Your task to perform on an android device: change text size in settings app Image 0: 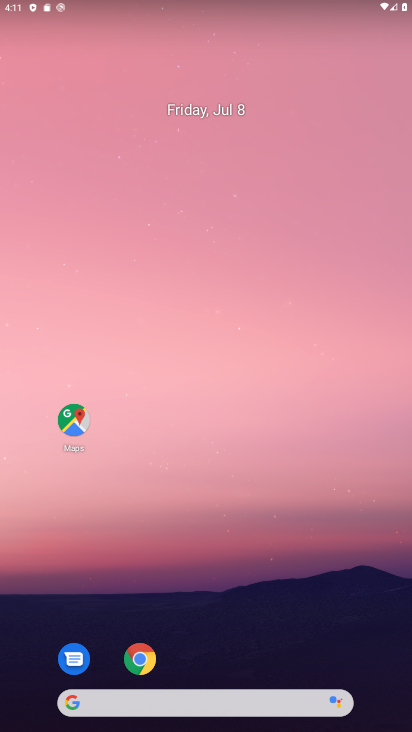
Step 0: drag from (217, 634) to (252, 87)
Your task to perform on an android device: change text size in settings app Image 1: 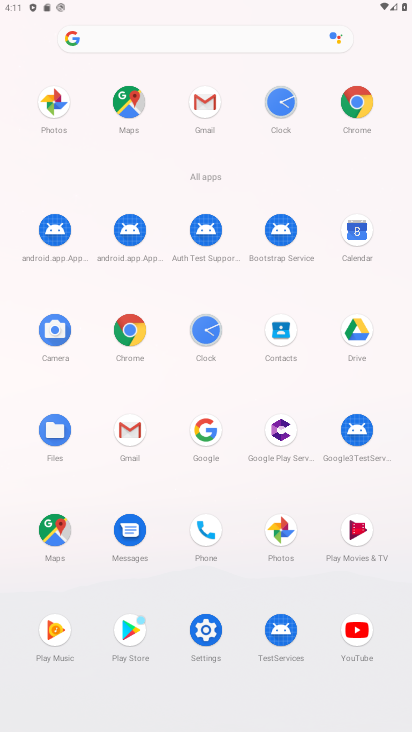
Step 1: drag from (241, 620) to (249, 119)
Your task to perform on an android device: change text size in settings app Image 2: 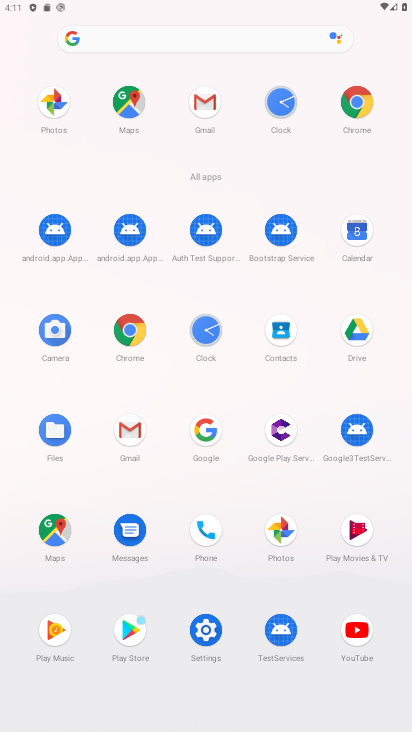
Step 2: click (201, 628)
Your task to perform on an android device: change text size in settings app Image 3: 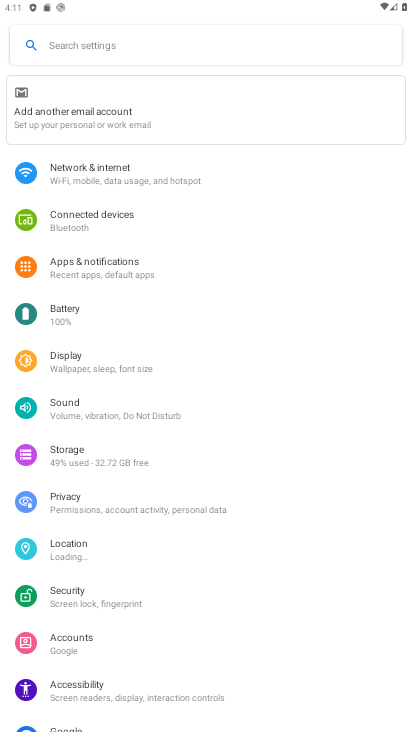
Step 3: drag from (187, 705) to (214, 199)
Your task to perform on an android device: change text size in settings app Image 4: 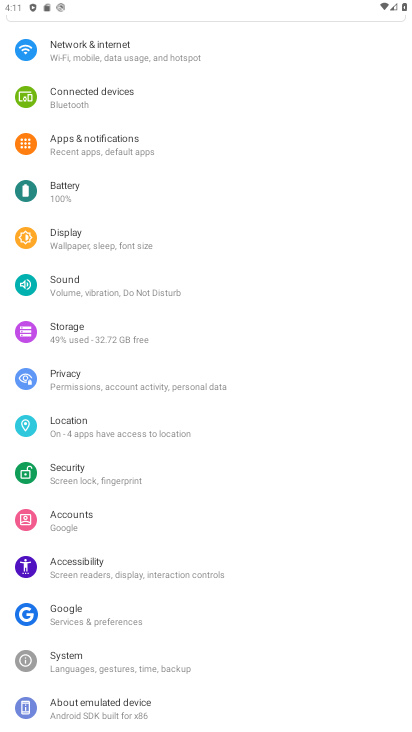
Step 4: click (96, 654)
Your task to perform on an android device: change text size in settings app Image 5: 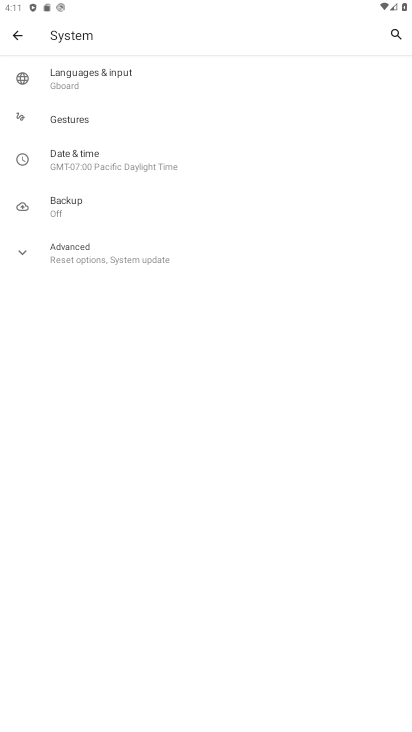
Step 5: click (22, 34)
Your task to perform on an android device: change text size in settings app Image 6: 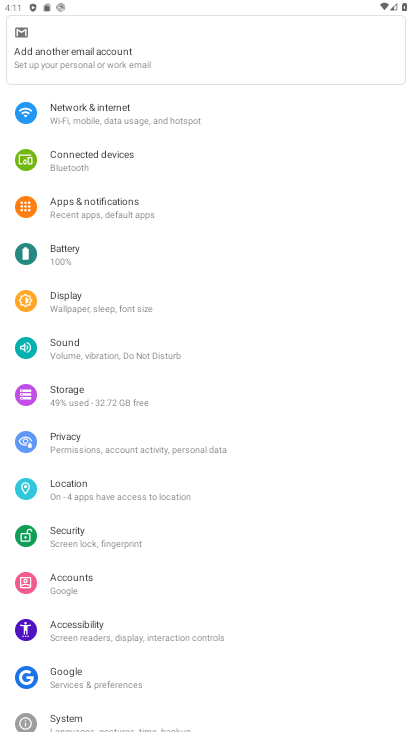
Step 6: drag from (186, 93) to (151, 519)
Your task to perform on an android device: change text size in settings app Image 7: 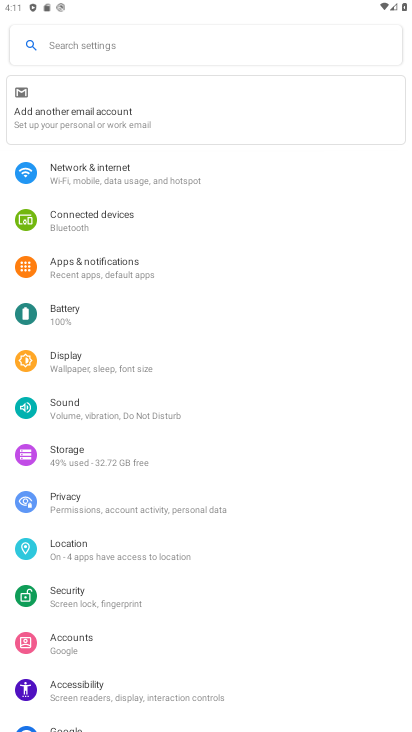
Step 7: click (80, 358)
Your task to perform on an android device: change text size in settings app Image 8: 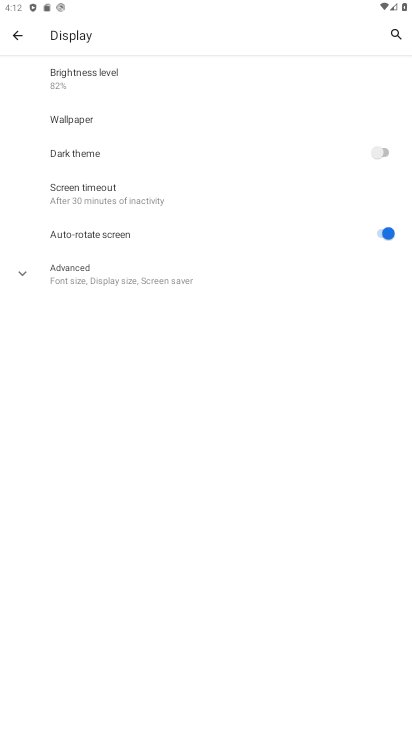
Step 8: click (120, 281)
Your task to perform on an android device: change text size in settings app Image 9: 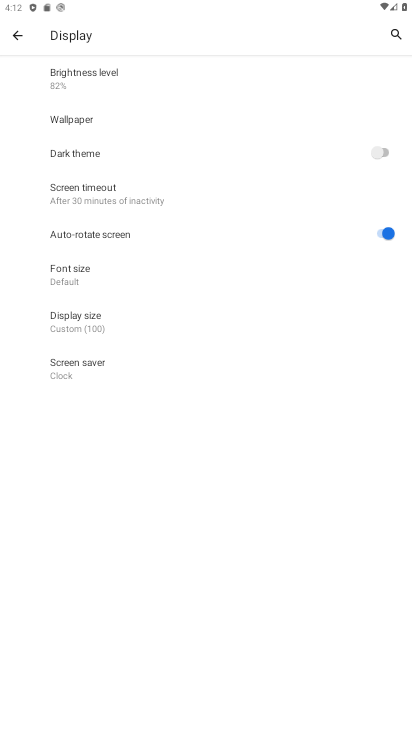
Step 9: click (57, 280)
Your task to perform on an android device: change text size in settings app Image 10: 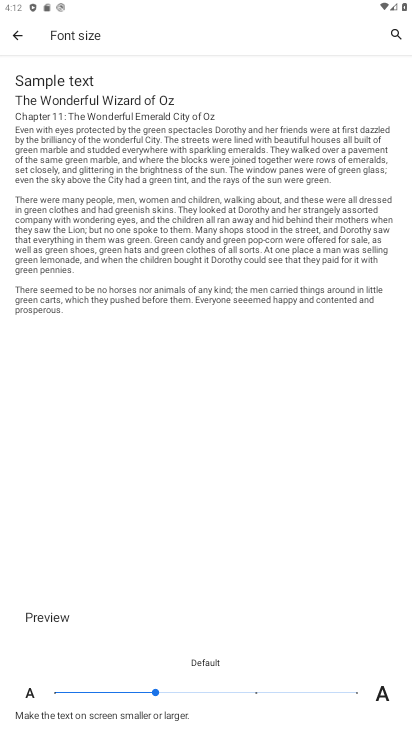
Step 10: click (257, 689)
Your task to perform on an android device: change text size in settings app Image 11: 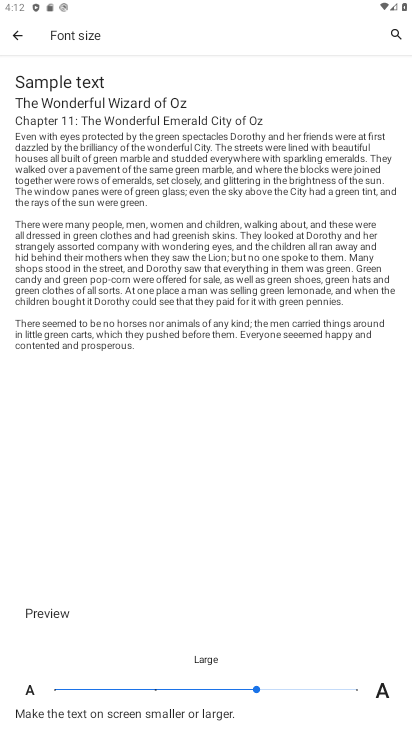
Step 11: task complete